Your task to perform on an android device: turn on showing notifications on the lock screen Image 0: 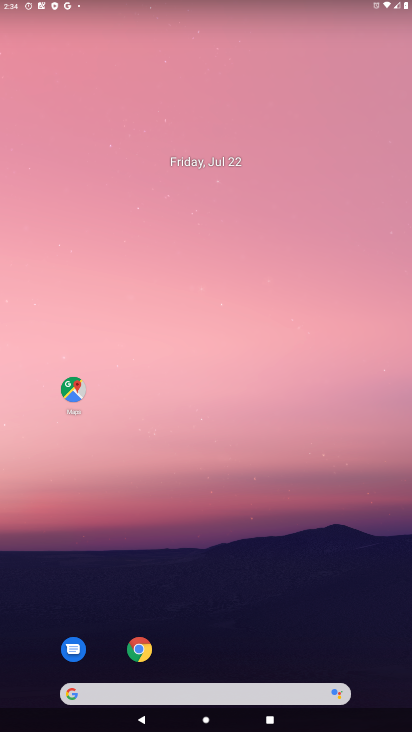
Step 0: drag from (301, 617) to (200, 0)
Your task to perform on an android device: turn on showing notifications on the lock screen Image 1: 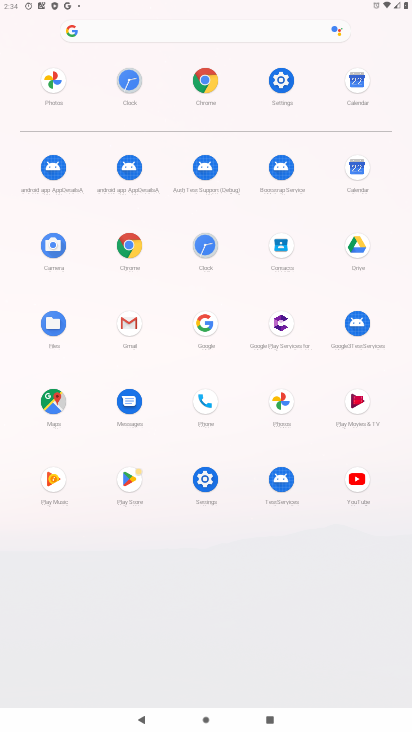
Step 1: click (289, 86)
Your task to perform on an android device: turn on showing notifications on the lock screen Image 2: 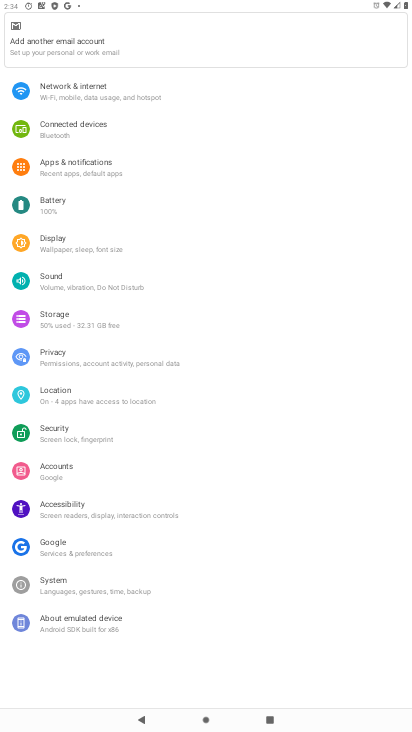
Step 2: click (103, 172)
Your task to perform on an android device: turn on showing notifications on the lock screen Image 3: 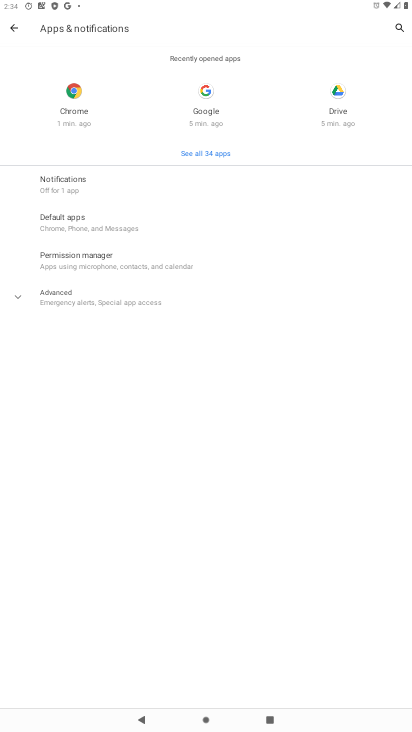
Step 3: click (99, 186)
Your task to perform on an android device: turn on showing notifications on the lock screen Image 4: 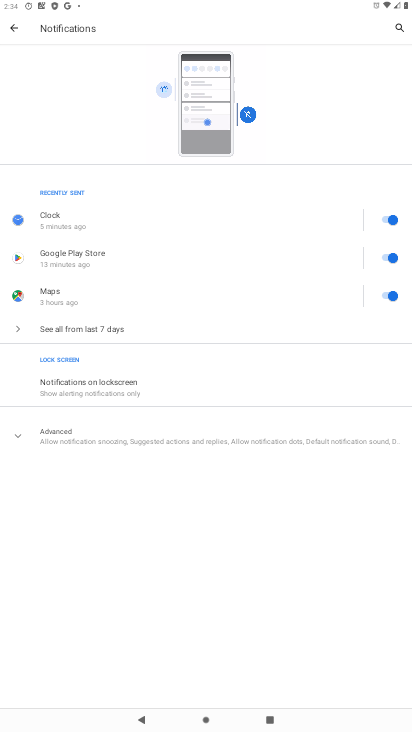
Step 4: click (150, 382)
Your task to perform on an android device: turn on showing notifications on the lock screen Image 5: 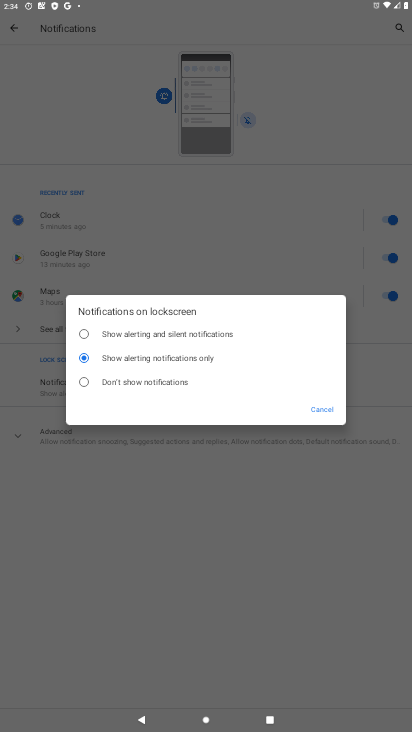
Step 5: task complete